Your task to perform on an android device: empty trash in the gmail app Image 0: 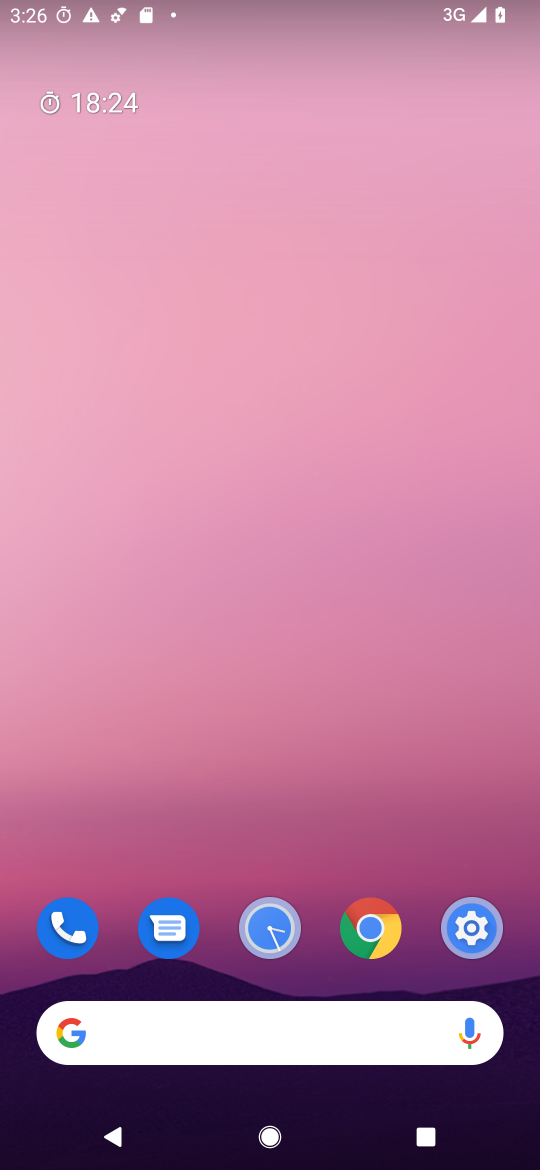
Step 0: drag from (292, 884) to (337, 182)
Your task to perform on an android device: empty trash in the gmail app Image 1: 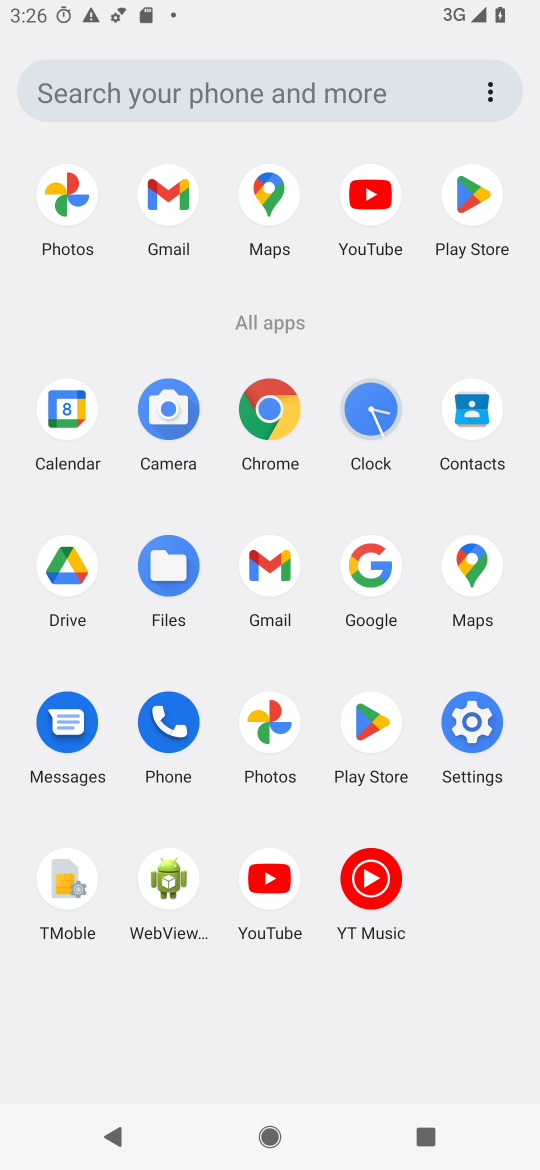
Step 1: click (142, 217)
Your task to perform on an android device: empty trash in the gmail app Image 2: 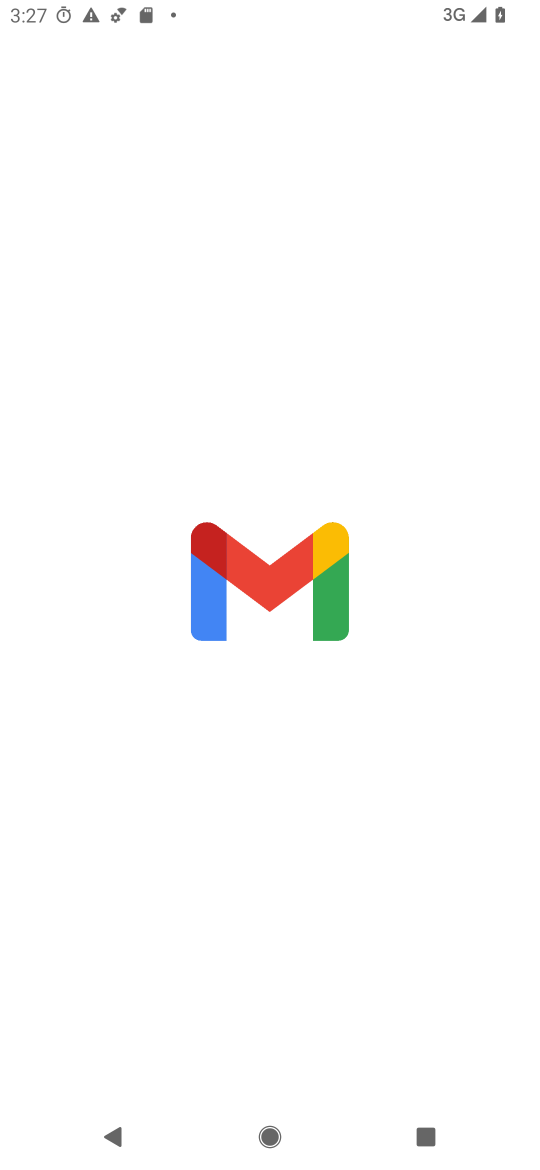
Step 2: press home button
Your task to perform on an android device: empty trash in the gmail app Image 3: 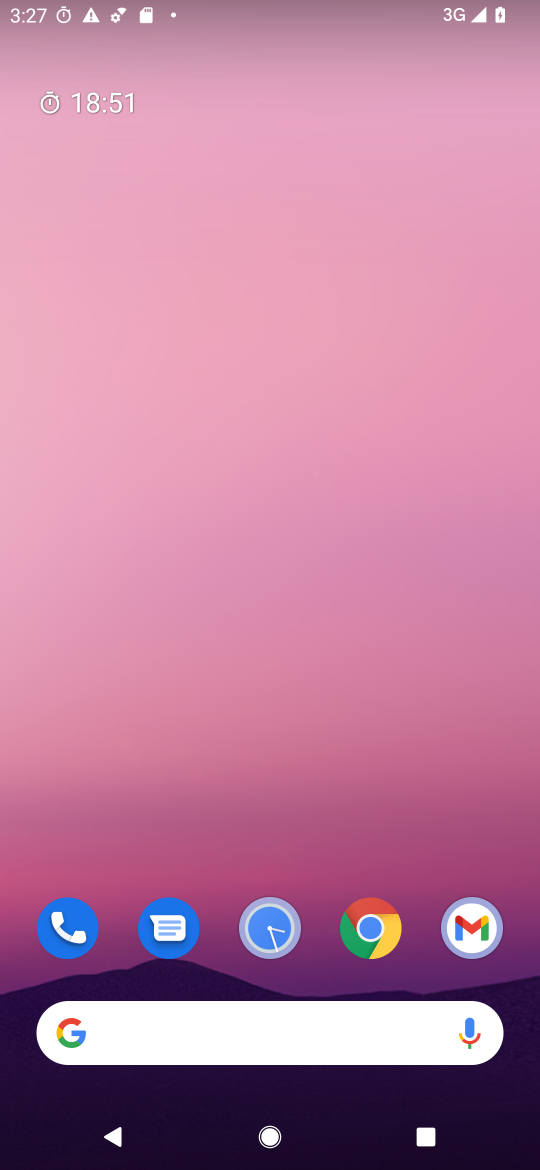
Step 3: click (455, 927)
Your task to perform on an android device: empty trash in the gmail app Image 4: 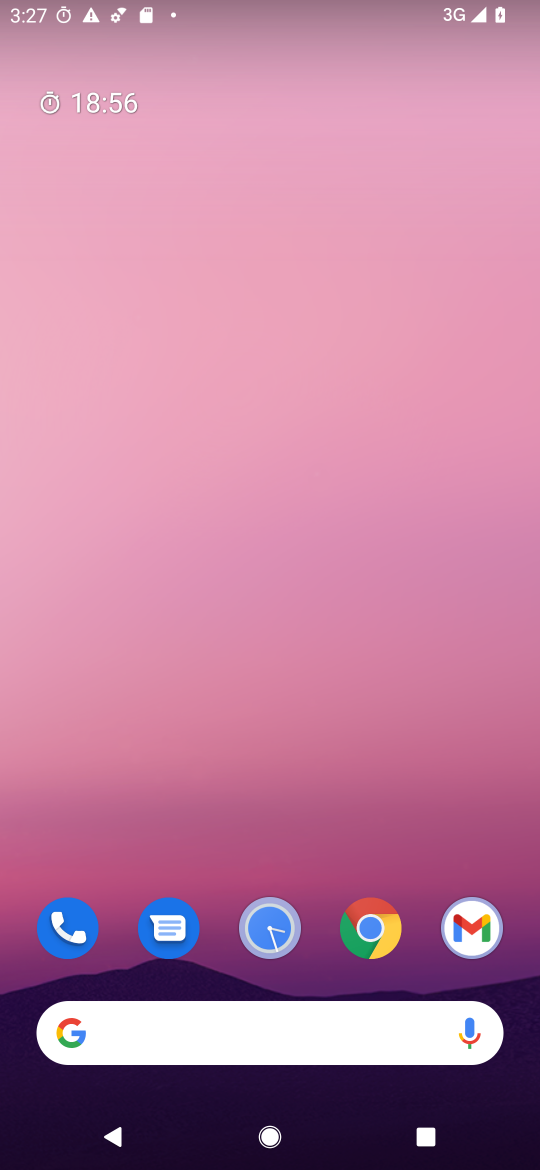
Step 4: click (455, 927)
Your task to perform on an android device: empty trash in the gmail app Image 5: 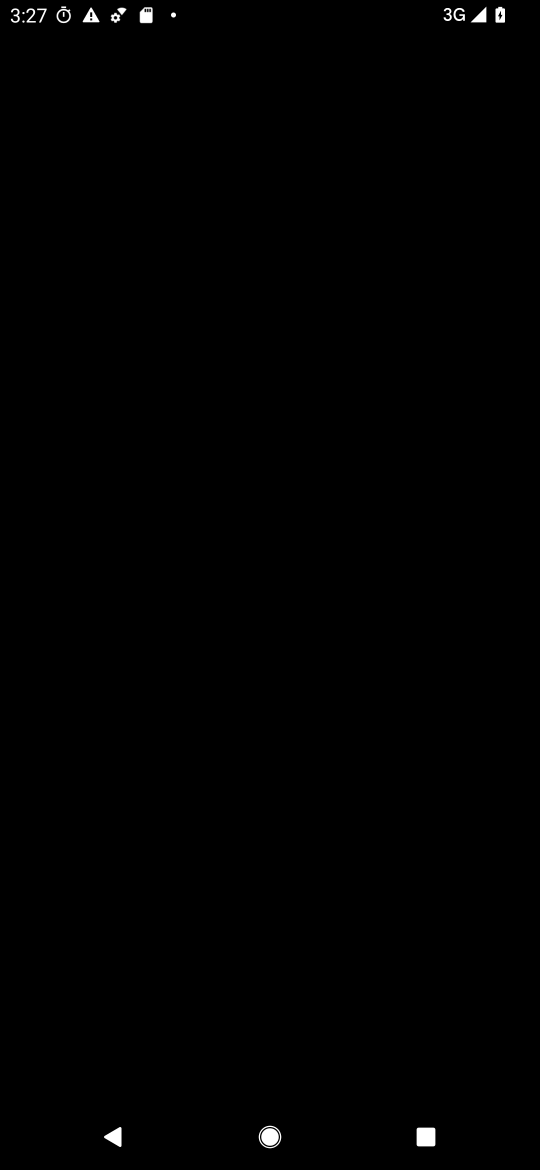
Step 5: click (466, 933)
Your task to perform on an android device: empty trash in the gmail app Image 6: 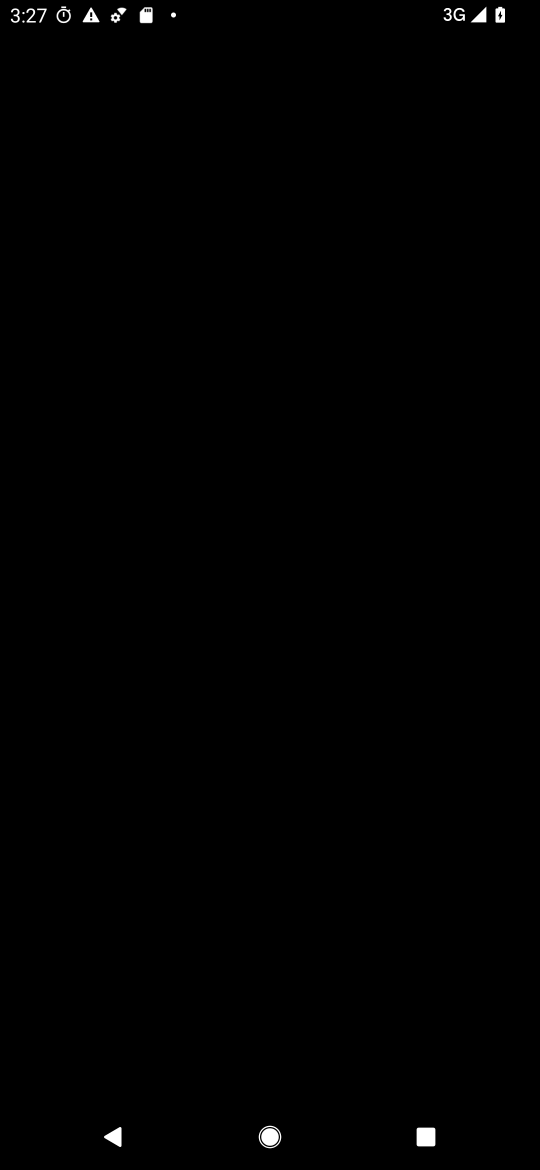
Step 6: click (342, 481)
Your task to perform on an android device: empty trash in the gmail app Image 7: 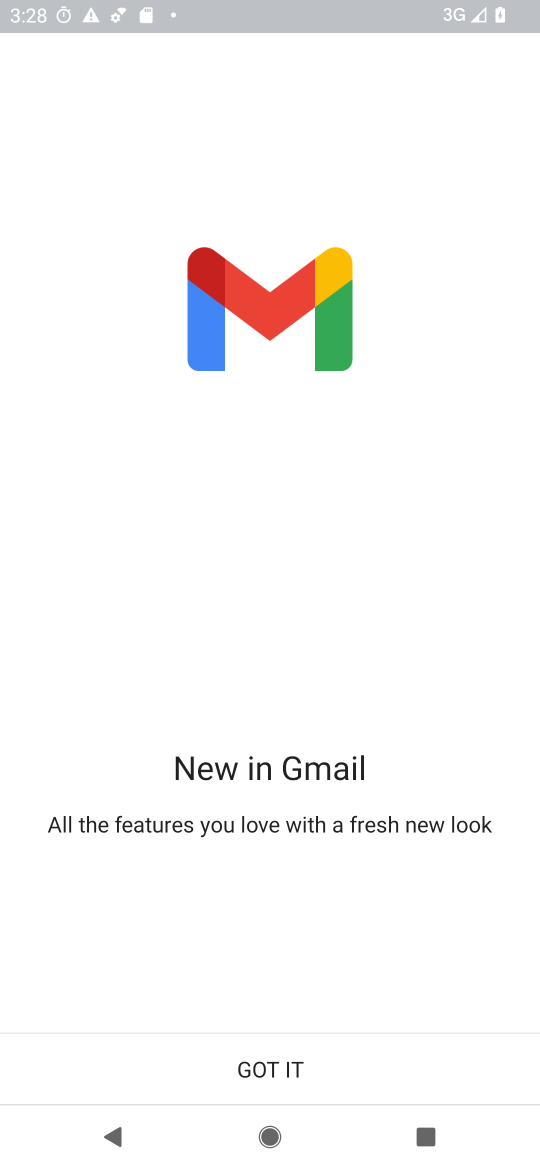
Step 7: click (205, 1038)
Your task to perform on an android device: empty trash in the gmail app Image 8: 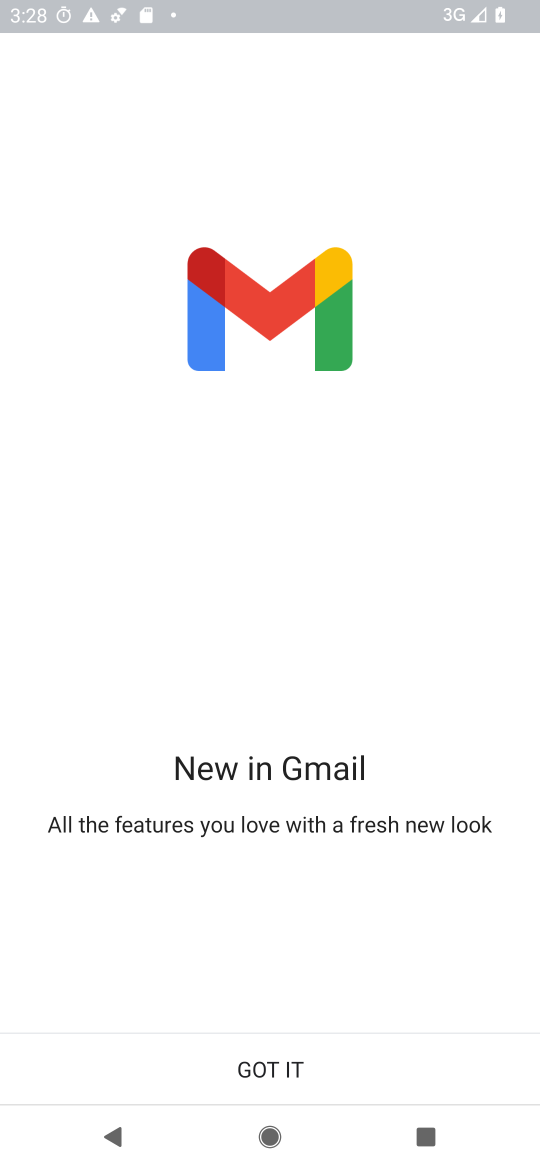
Step 8: click (275, 1087)
Your task to perform on an android device: empty trash in the gmail app Image 9: 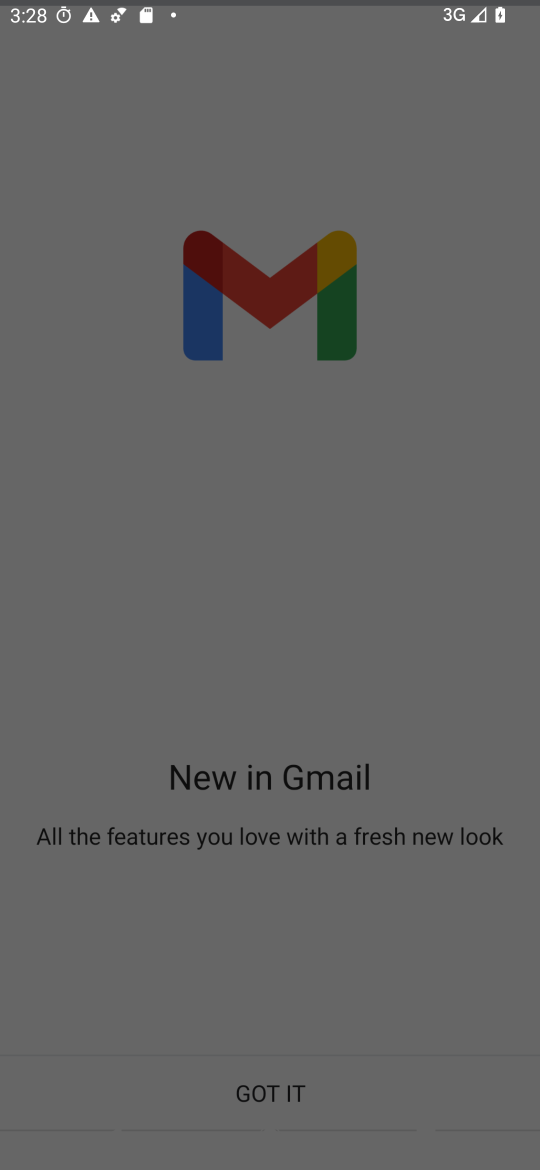
Step 9: click (275, 1087)
Your task to perform on an android device: empty trash in the gmail app Image 10: 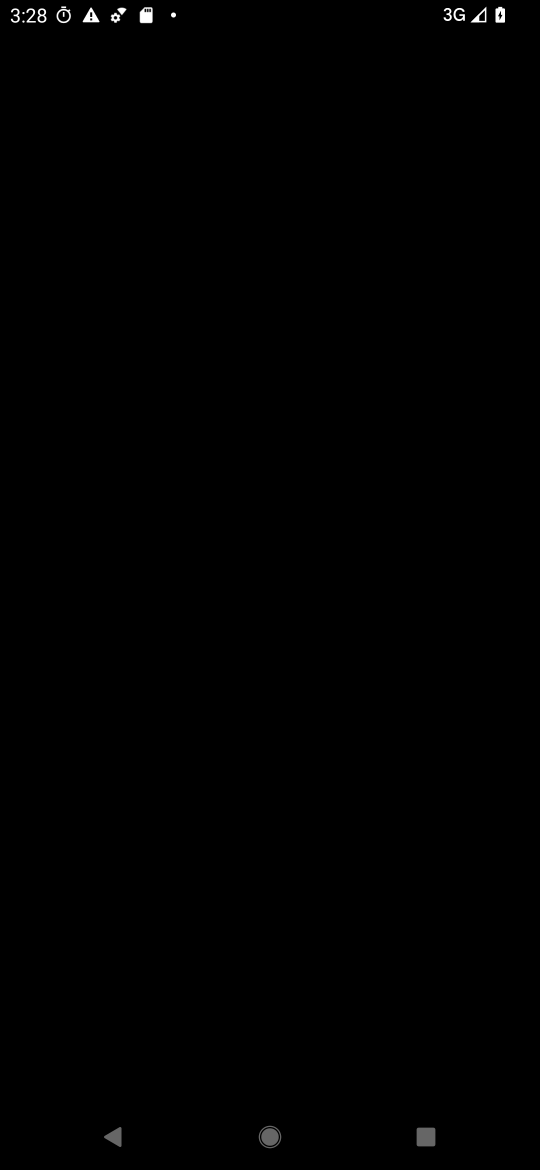
Step 10: click (275, 1087)
Your task to perform on an android device: empty trash in the gmail app Image 11: 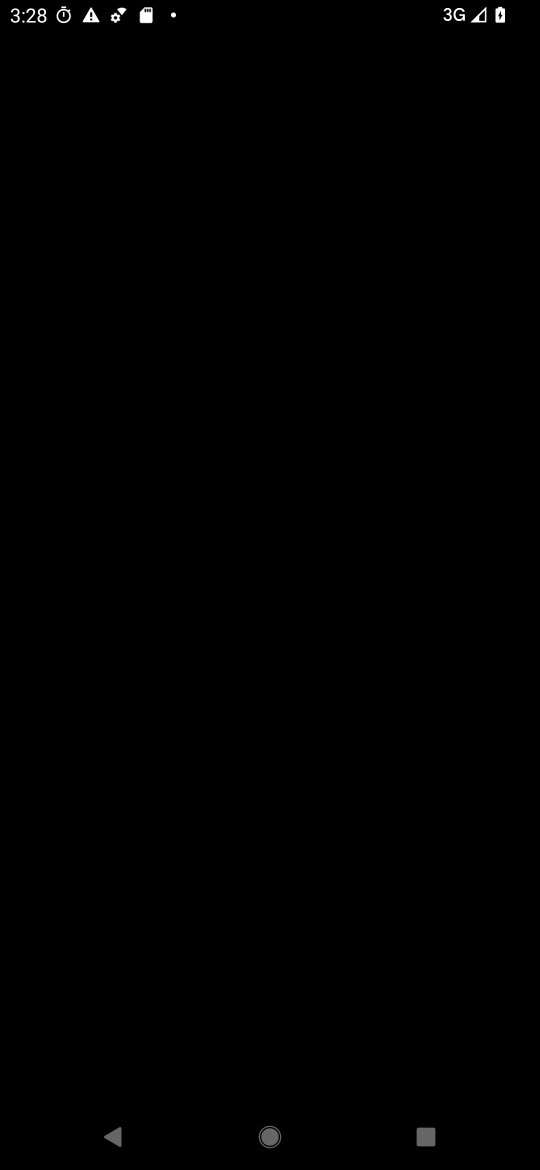
Step 11: click (275, 1087)
Your task to perform on an android device: empty trash in the gmail app Image 12: 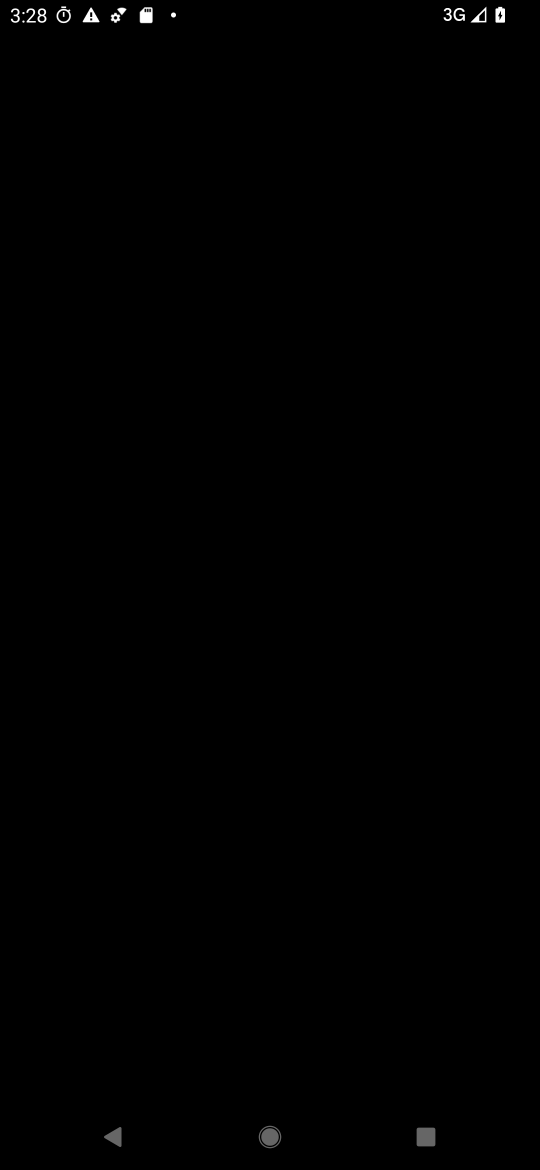
Step 12: click (275, 1087)
Your task to perform on an android device: empty trash in the gmail app Image 13: 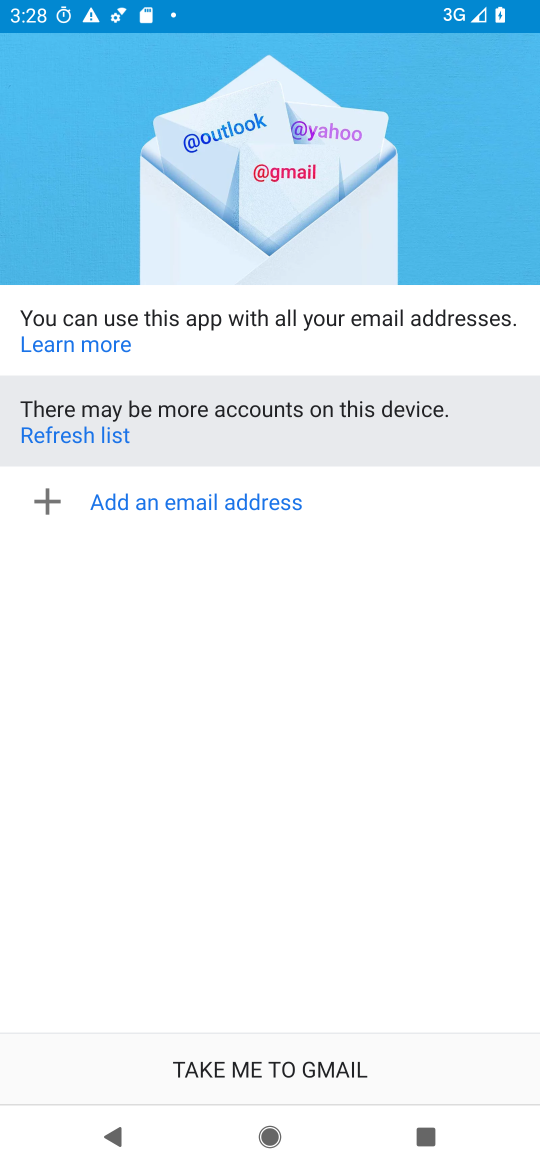
Step 13: click (258, 1055)
Your task to perform on an android device: empty trash in the gmail app Image 14: 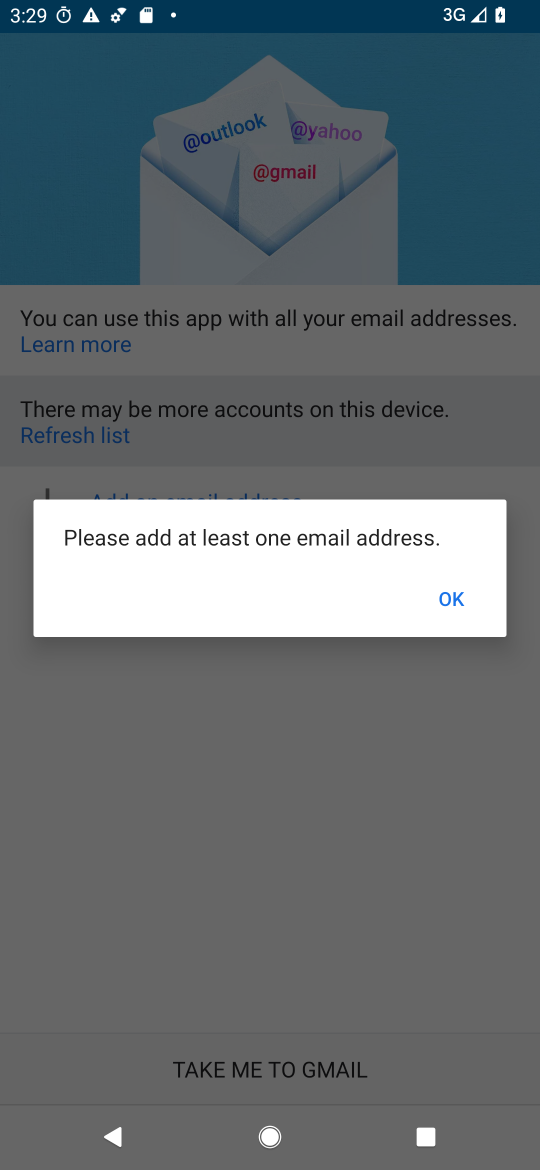
Step 14: click (442, 592)
Your task to perform on an android device: empty trash in the gmail app Image 15: 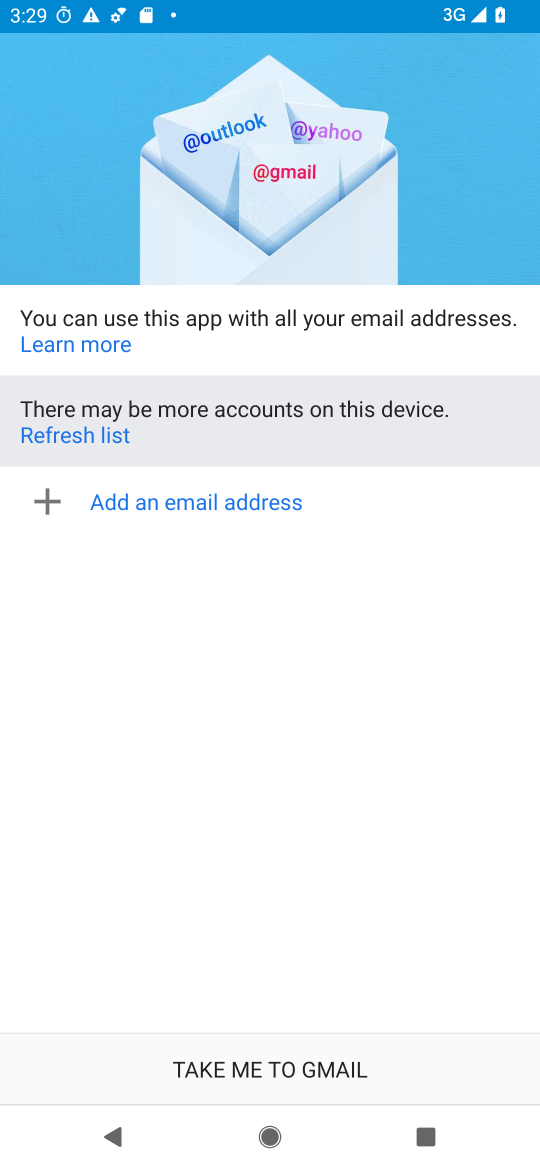
Step 15: click (286, 1057)
Your task to perform on an android device: empty trash in the gmail app Image 16: 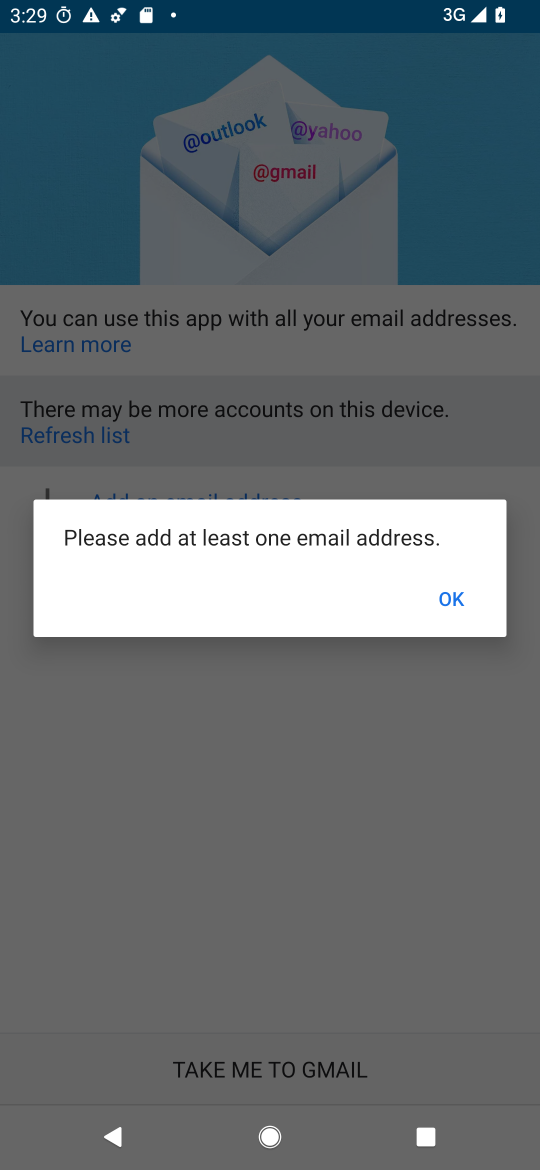
Step 16: click (444, 579)
Your task to perform on an android device: empty trash in the gmail app Image 17: 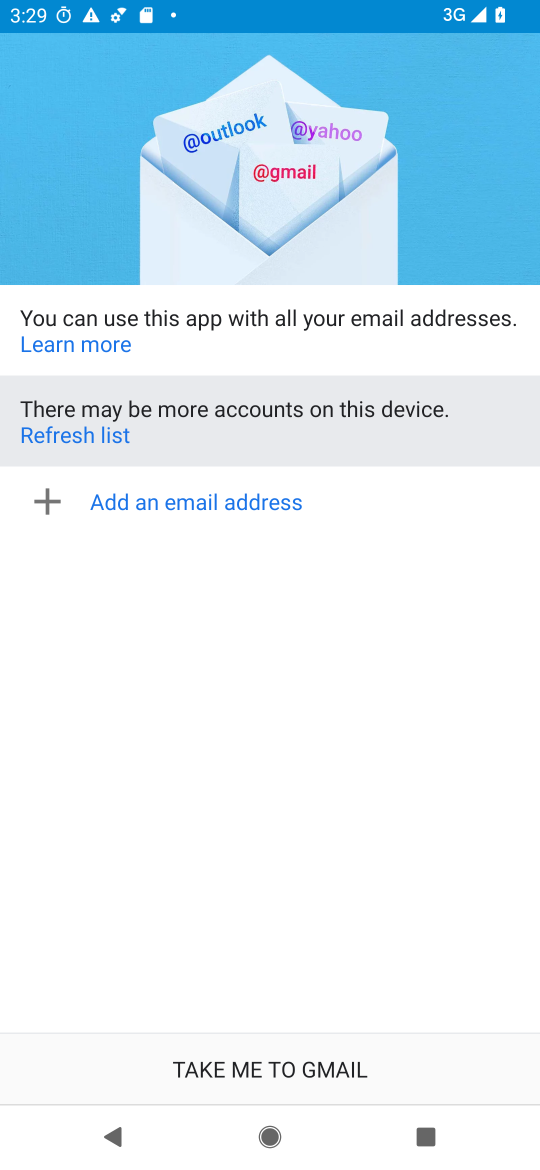
Step 17: task complete